Your task to perform on an android device: Do I have any events this weekend? Image 0: 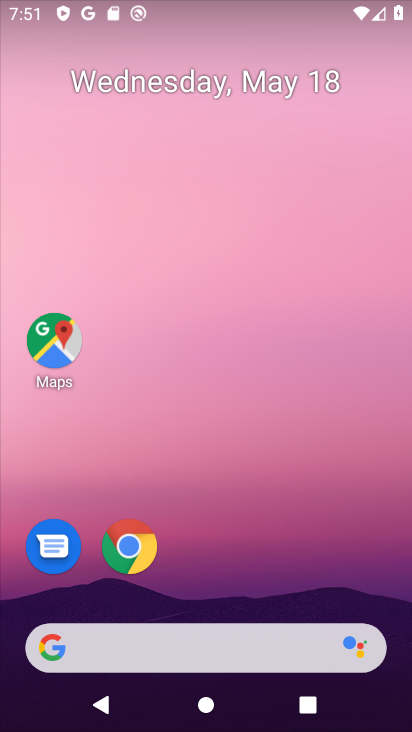
Step 0: drag from (330, 589) to (295, 54)
Your task to perform on an android device: Do I have any events this weekend? Image 1: 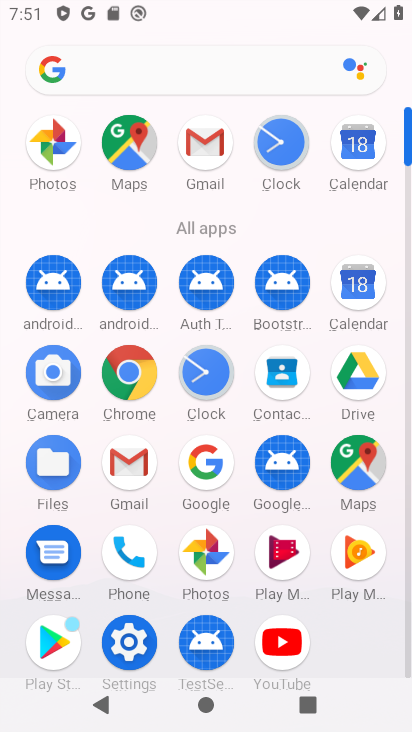
Step 1: click (352, 155)
Your task to perform on an android device: Do I have any events this weekend? Image 2: 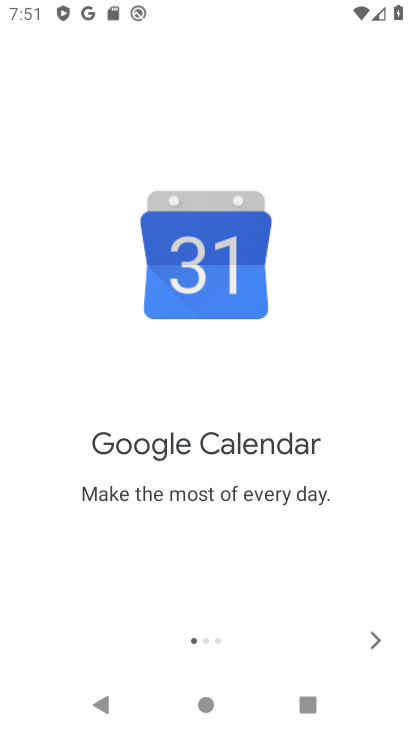
Step 2: click (372, 634)
Your task to perform on an android device: Do I have any events this weekend? Image 3: 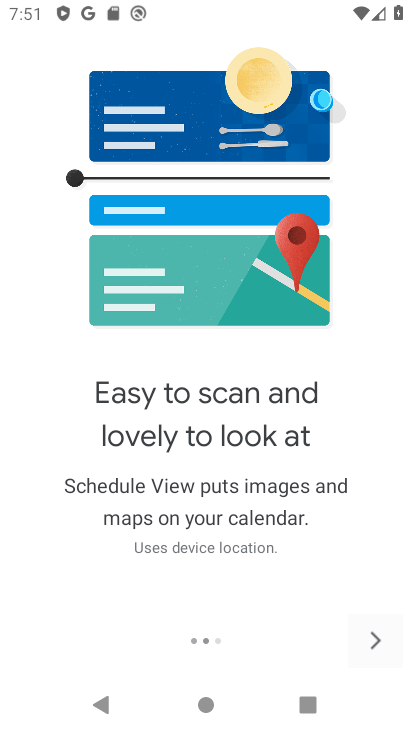
Step 3: click (372, 634)
Your task to perform on an android device: Do I have any events this weekend? Image 4: 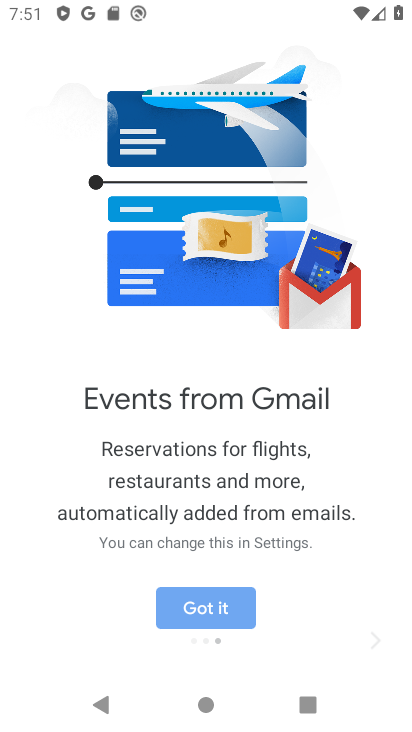
Step 4: click (372, 634)
Your task to perform on an android device: Do I have any events this weekend? Image 5: 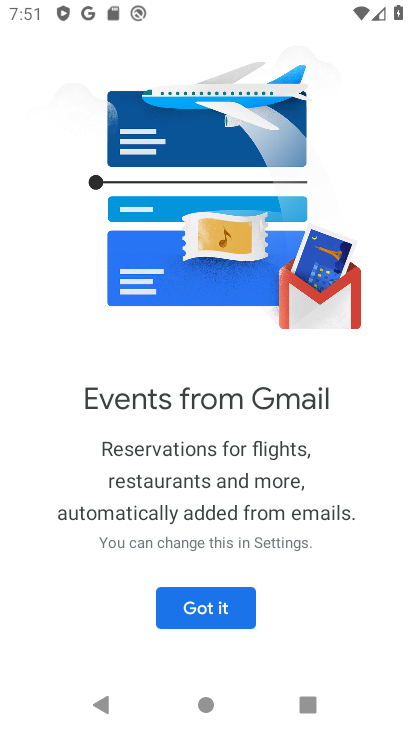
Step 5: click (236, 613)
Your task to perform on an android device: Do I have any events this weekend? Image 6: 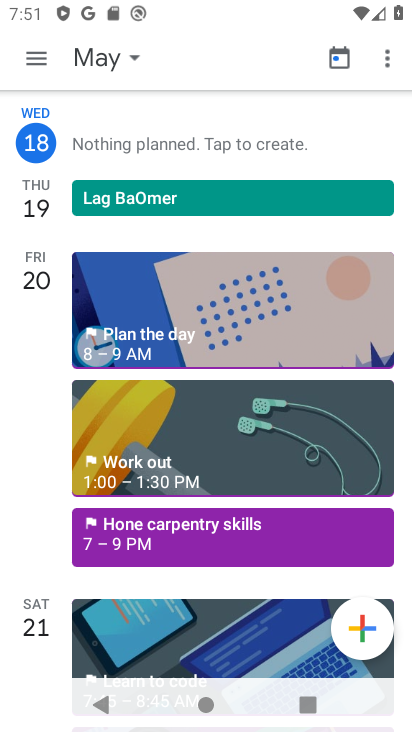
Step 6: task complete